Your task to perform on an android device: Go to sound settings Image 0: 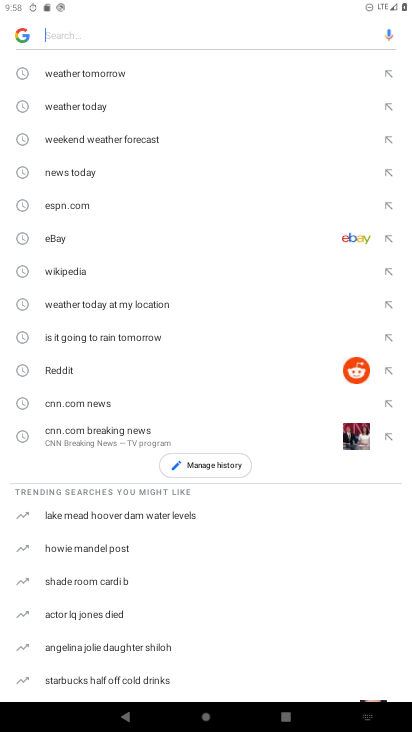
Step 0: drag from (264, 3) to (186, 480)
Your task to perform on an android device: Go to sound settings Image 1: 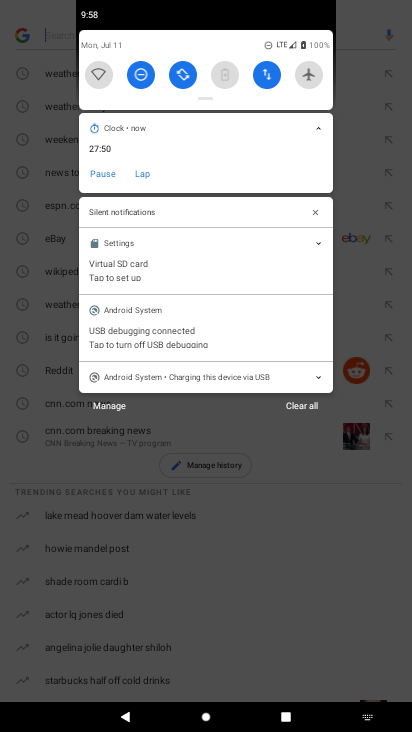
Step 1: click (189, 42)
Your task to perform on an android device: Go to sound settings Image 2: 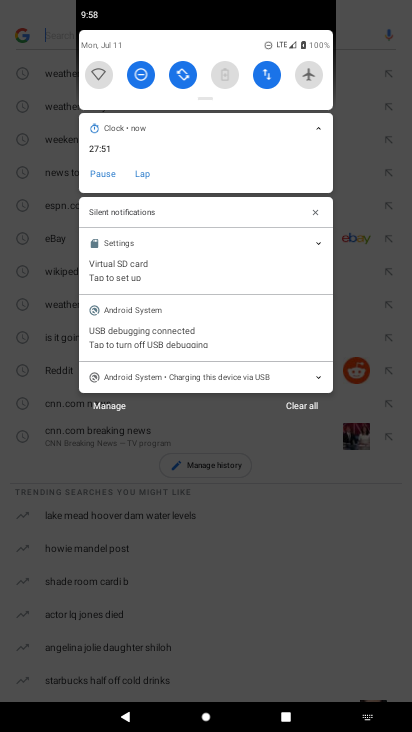
Step 2: drag from (189, 42) to (199, 411)
Your task to perform on an android device: Go to sound settings Image 3: 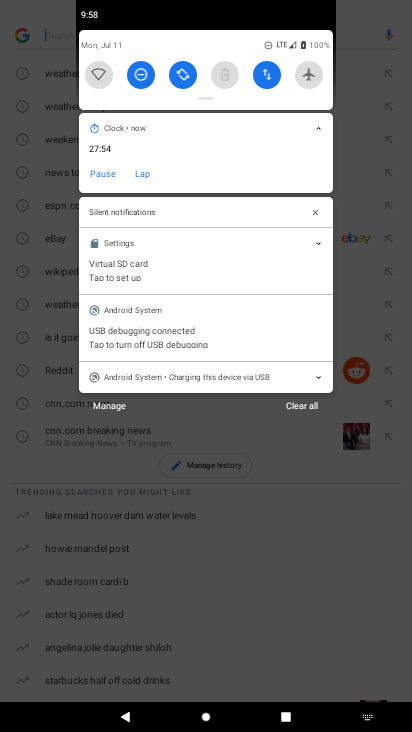
Step 3: drag from (171, 52) to (160, 598)
Your task to perform on an android device: Go to sound settings Image 4: 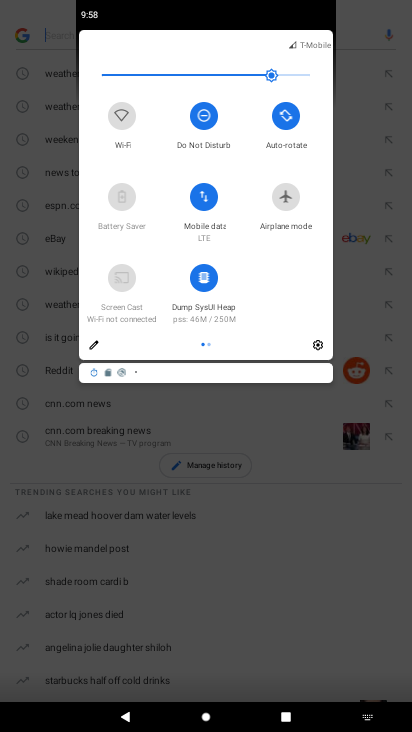
Step 4: click (322, 348)
Your task to perform on an android device: Go to sound settings Image 5: 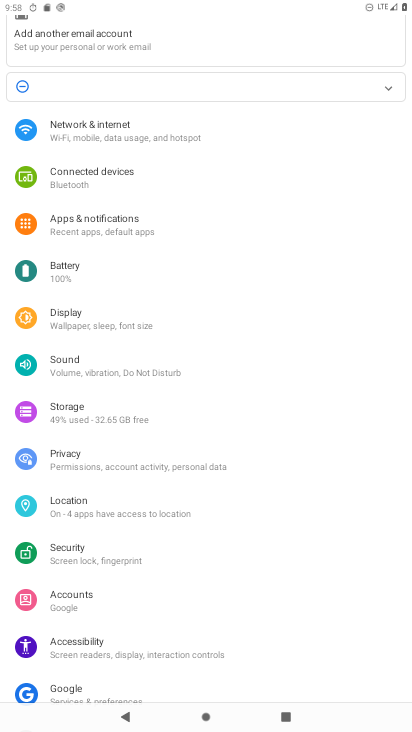
Step 5: click (153, 373)
Your task to perform on an android device: Go to sound settings Image 6: 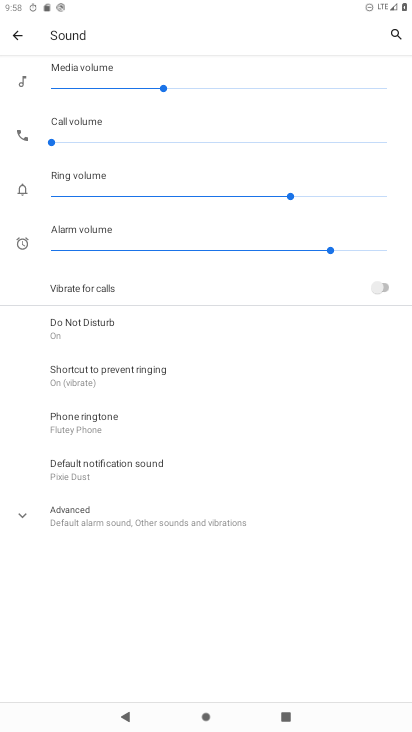
Step 6: task complete